Your task to perform on an android device: turn on location history Image 0: 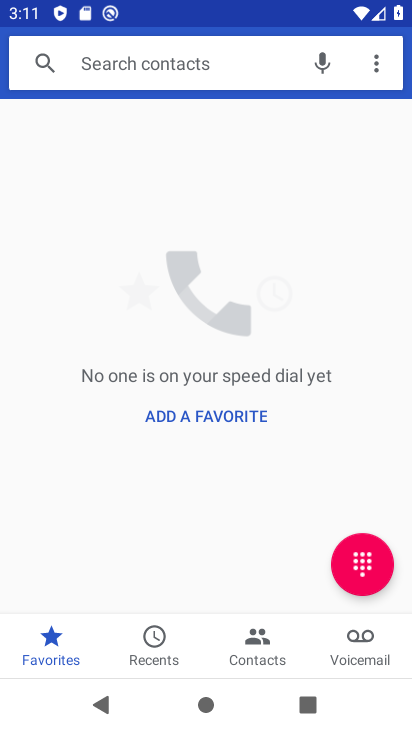
Step 0: press home button
Your task to perform on an android device: turn on location history Image 1: 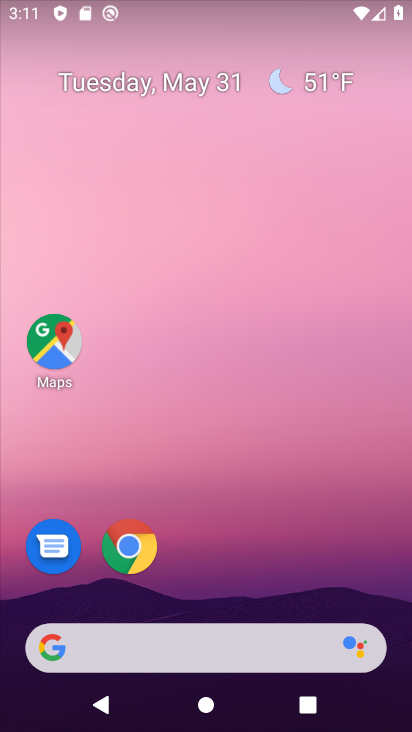
Step 1: drag from (195, 593) to (188, 318)
Your task to perform on an android device: turn on location history Image 2: 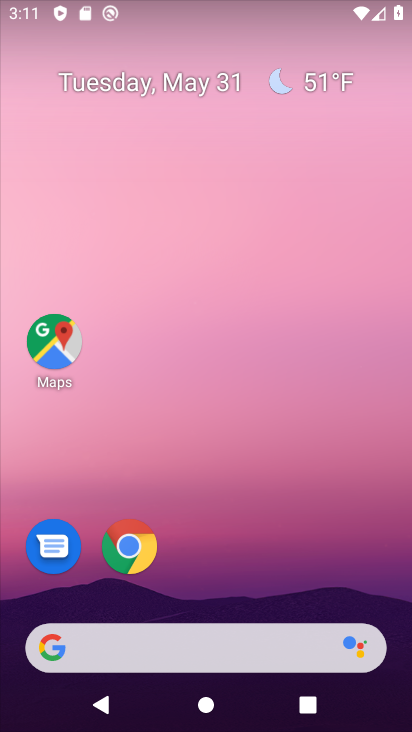
Step 2: drag from (223, 506) to (217, 232)
Your task to perform on an android device: turn on location history Image 3: 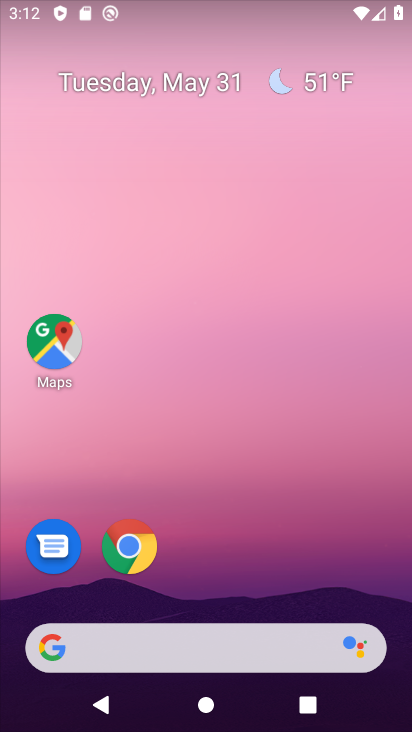
Step 3: drag from (194, 585) to (216, 157)
Your task to perform on an android device: turn on location history Image 4: 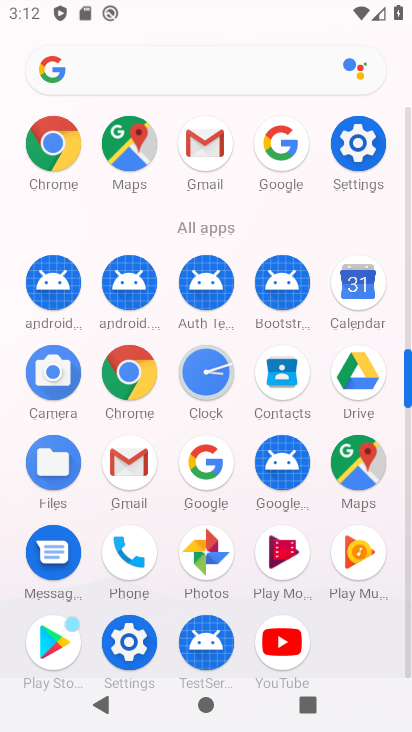
Step 4: click (122, 642)
Your task to perform on an android device: turn on location history Image 5: 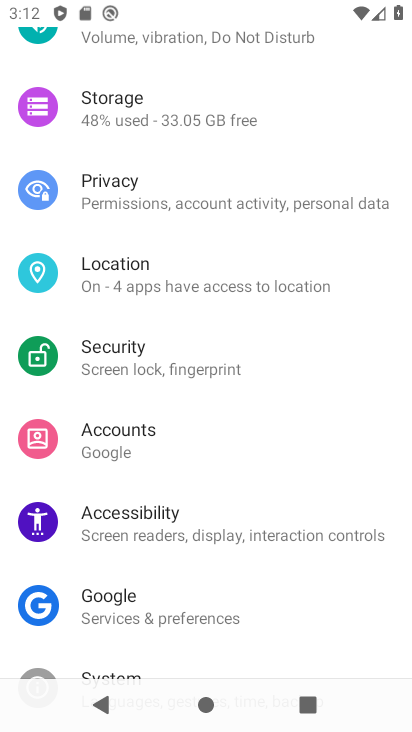
Step 5: drag from (116, 642) to (152, 401)
Your task to perform on an android device: turn on location history Image 6: 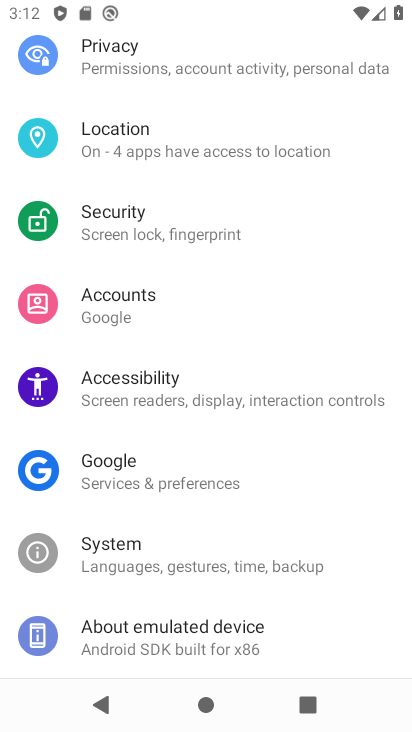
Step 6: click (105, 157)
Your task to perform on an android device: turn on location history Image 7: 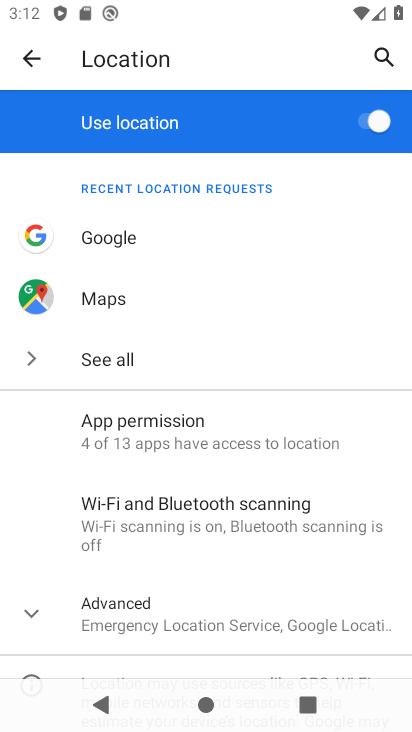
Step 7: drag from (178, 538) to (189, 354)
Your task to perform on an android device: turn on location history Image 8: 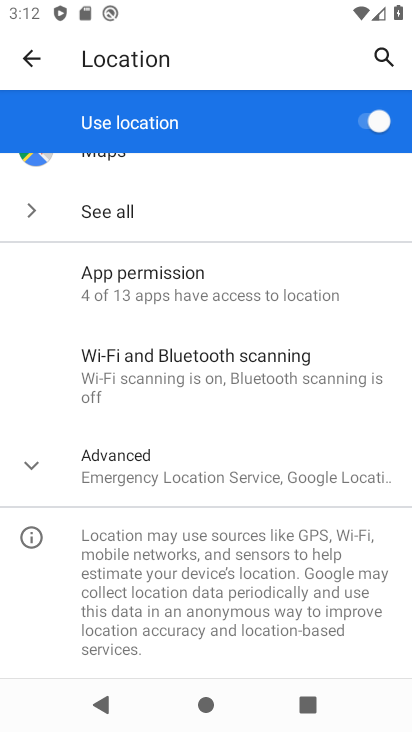
Step 8: click (96, 480)
Your task to perform on an android device: turn on location history Image 9: 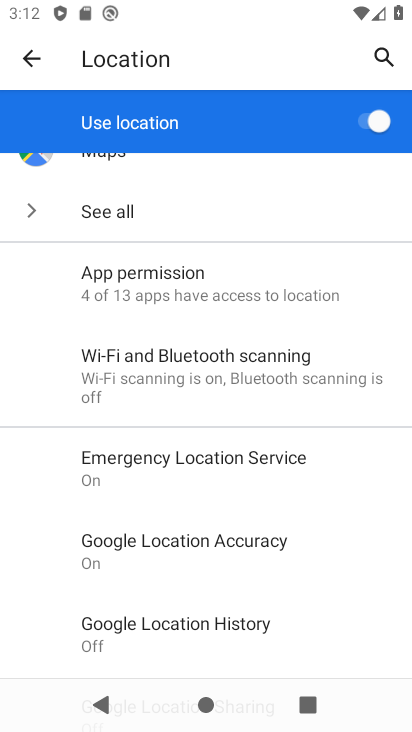
Step 9: click (201, 625)
Your task to perform on an android device: turn on location history Image 10: 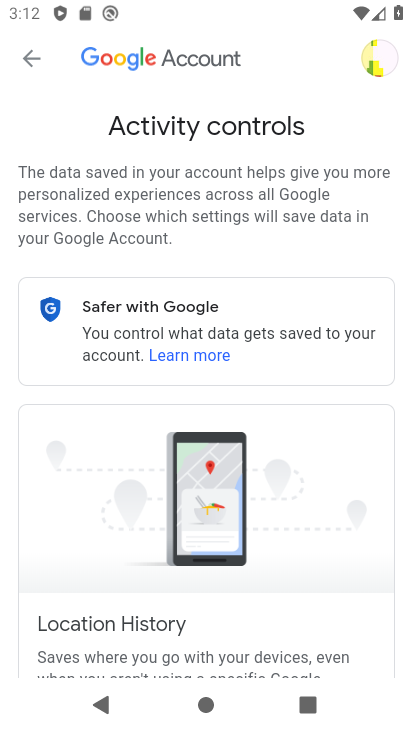
Step 10: task complete